Your task to perform on an android device: turn off improve location accuracy Image 0: 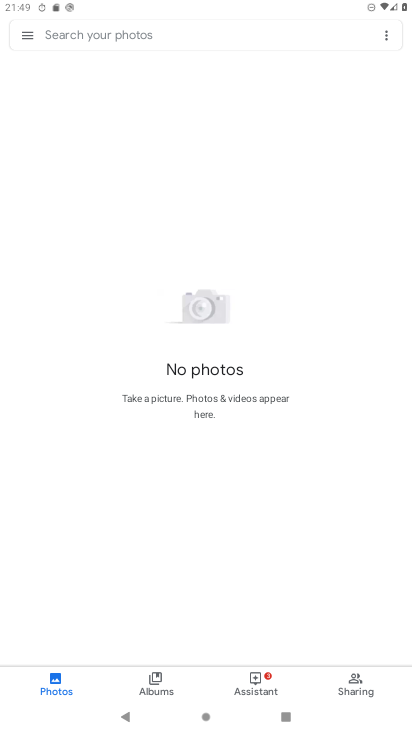
Step 0: press home button
Your task to perform on an android device: turn off improve location accuracy Image 1: 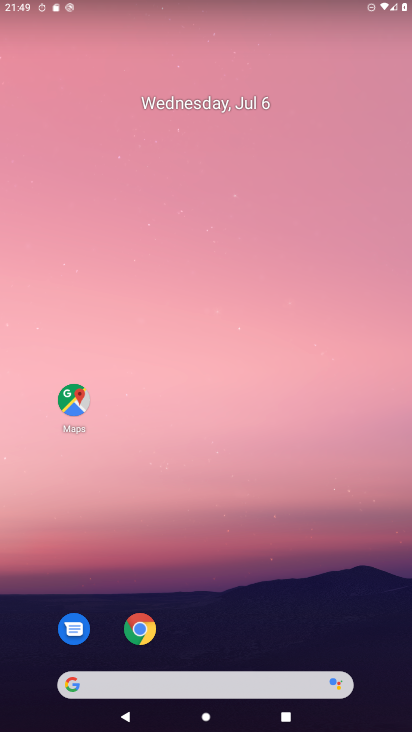
Step 1: drag from (233, 691) to (233, 615)
Your task to perform on an android device: turn off improve location accuracy Image 2: 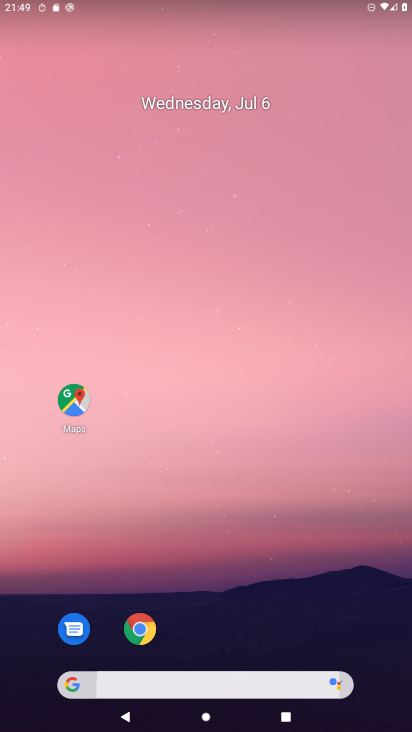
Step 2: drag from (225, 405) to (223, 173)
Your task to perform on an android device: turn off improve location accuracy Image 3: 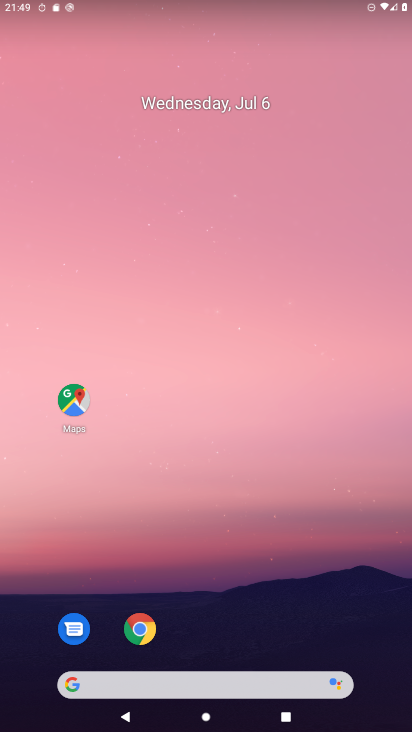
Step 3: drag from (240, 710) to (218, 96)
Your task to perform on an android device: turn off improve location accuracy Image 4: 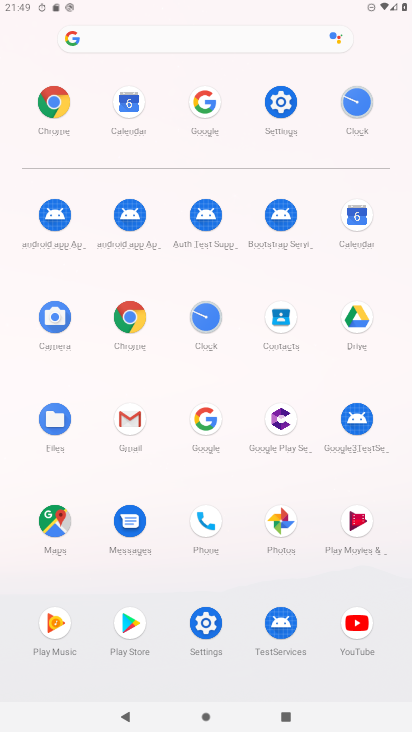
Step 4: click (287, 100)
Your task to perform on an android device: turn off improve location accuracy Image 5: 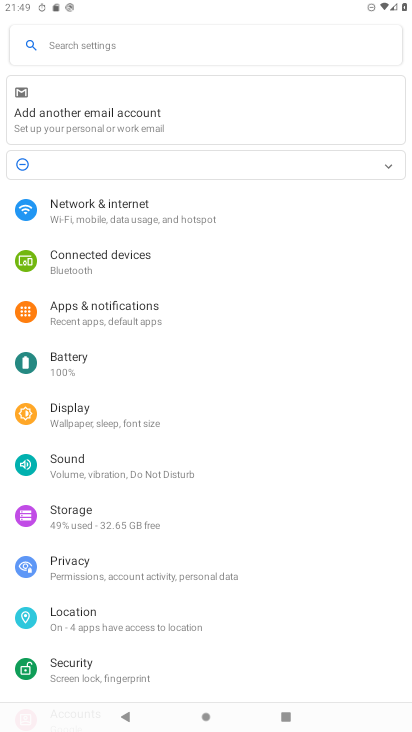
Step 5: click (83, 614)
Your task to perform on an android device: turn off improve location accuracy Image 6: 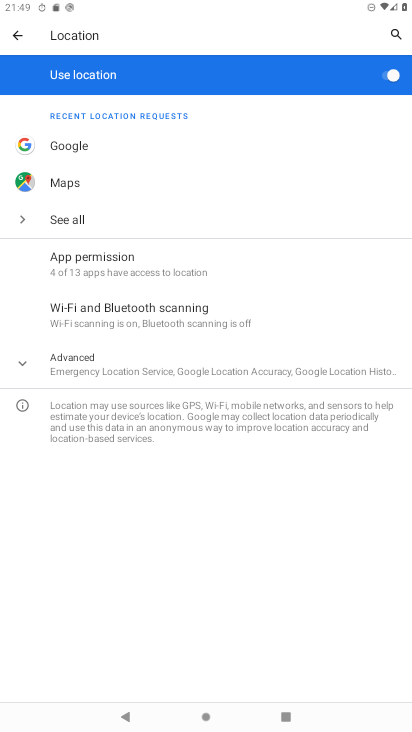
Step 6: click (94, 363)
Your task to perform on an android device: turn off improve location accuracy Image 7: 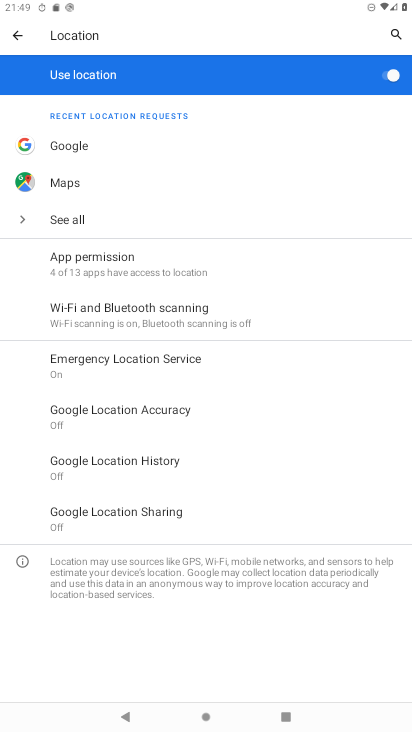
Step 7: click (131, 406)
Your task to perform on an android device: turn off improve location accuracy Image 8: 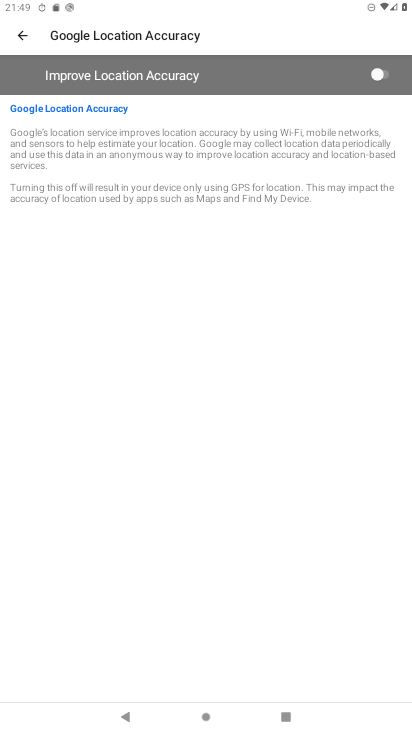
Step 8: task complete